Your task to perform on an android device: Search for Italian restaurants on Maps Image 0: 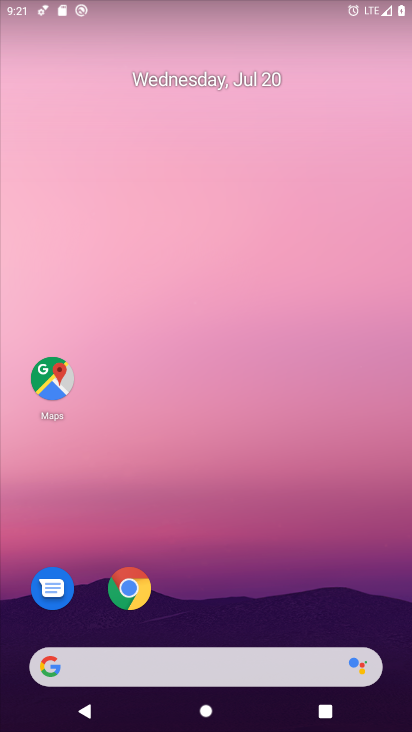
Step 0: press home button
Your task to perform on an android device: Search for Italian restaurants on Maps Image 1: 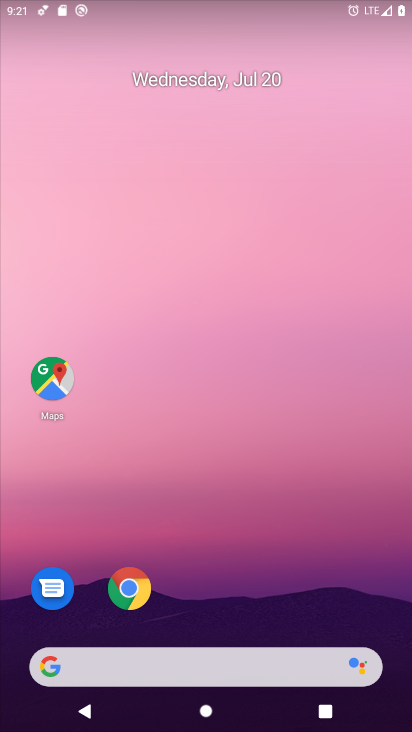
Step 1: click (52, 373)
Your task to perform on an android device: Search for Italian restaurants on Maps Image 2: 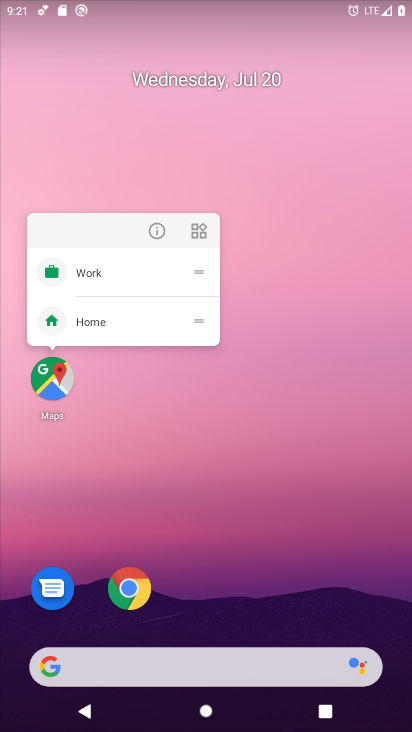
Step 2: click (52, 373)
Your task to perform on an android device: Search for Italian restaurants on Maps Image 3: 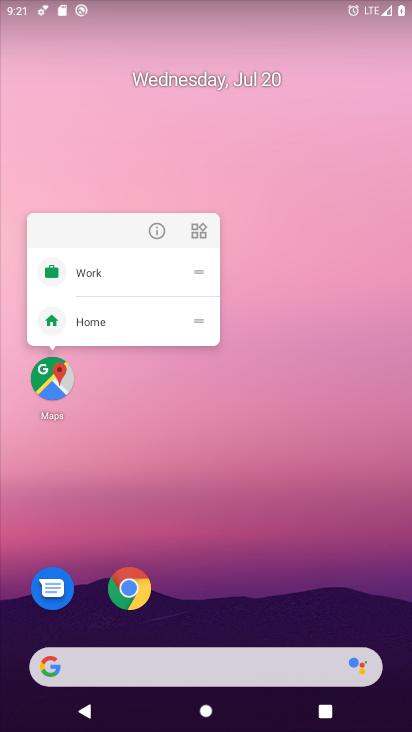
Step 3: click (53, 374)
Your task to perform on an android device: Search for Italian restaurants on Maps Image 4: 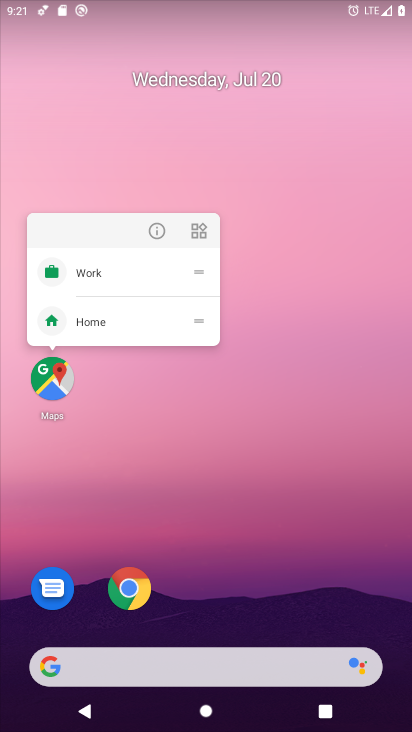
Step 4: click (53, 375)
Your task to perform on an android device: Search for Italian restaurants on Maps Image 5: 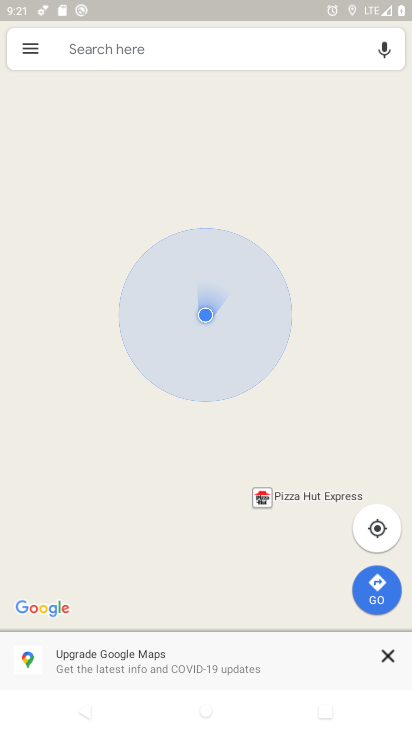
Step 5: click (97, 46)
Your task to perform on an android device: Search for Italian restaurants on Maps Image 6: 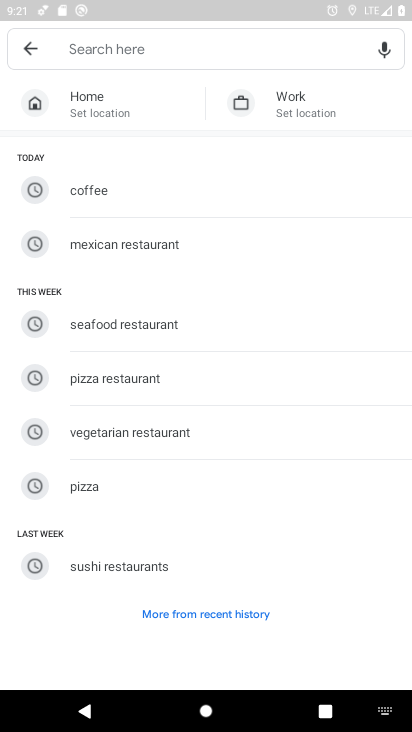
Step 6: type "italian"
Your task to perform on an android device: Search for Italian restaurants on Maps Image 7: 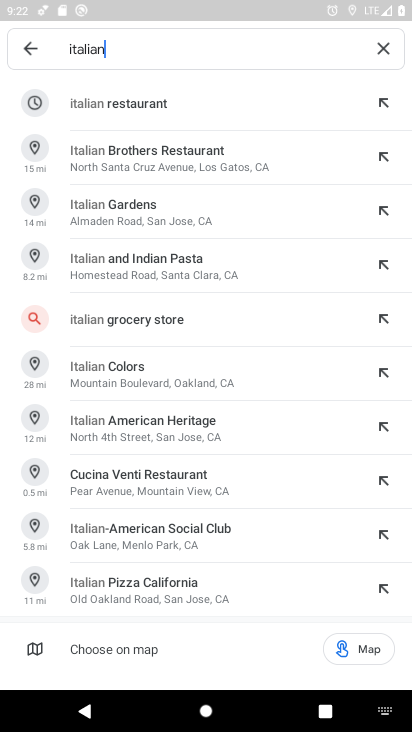
Step 7: click (154, 104)
Your task to perform on an android device: Search for Italian restaurants on Maps Image 8: 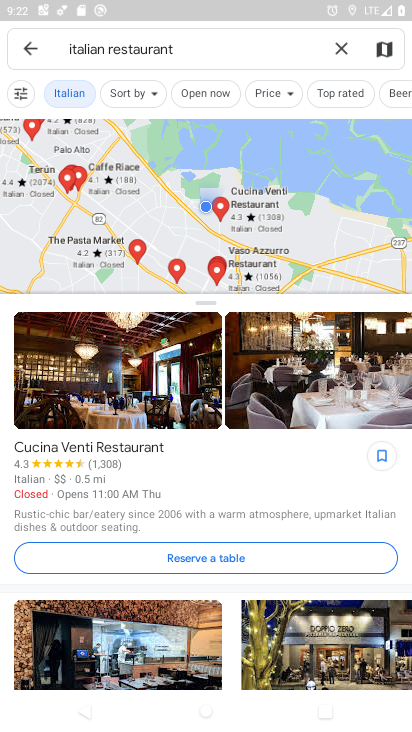
Step 8: task complete